Your task to perform on an android device: What's the weather today? Image 0: 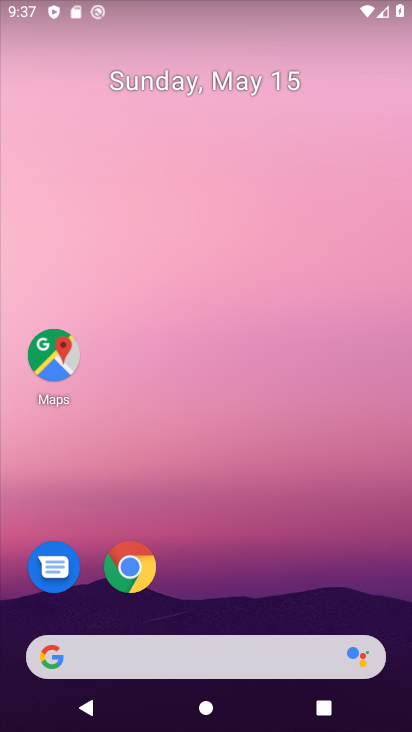
Step 0: drag from (240, 570) to (249, 115)
Your task to perform on an android device: What's the weather today? Image 1: 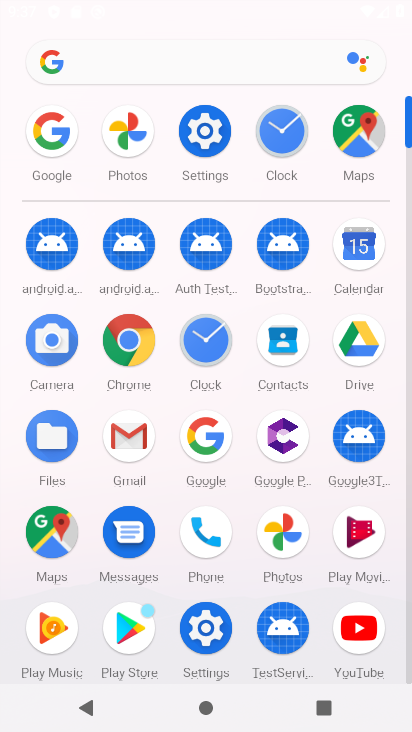
Step 1: click (210, 430)
Your task to perform on an android device: What's the weather today? Image 2: 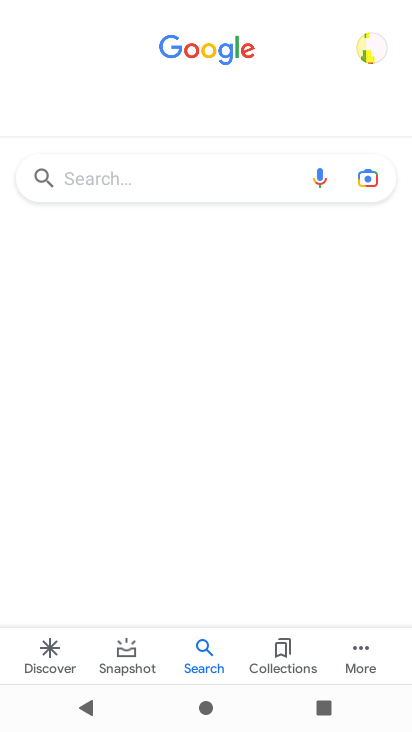
Step 2: click (174, 172)
Your task to perform on an android device: What's the weather today? Image 3: 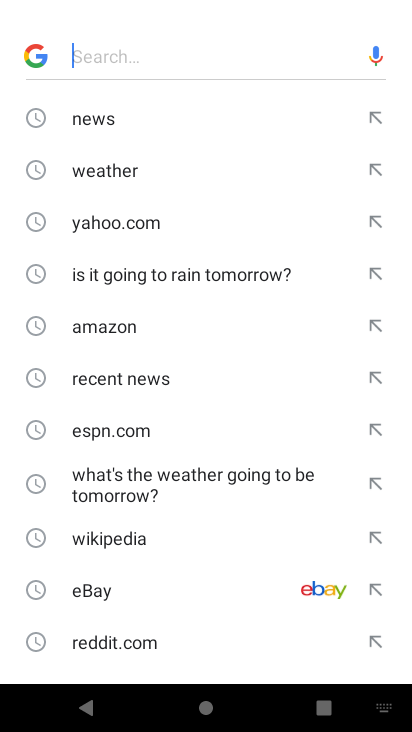
Step 3: click (130, 172)
Your task to perform on an android device: What's the weather today? Image 4: 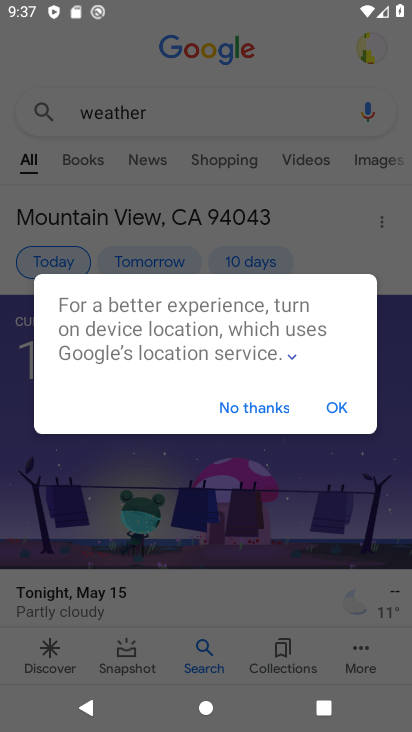
Step 4: task complete